Your task to perform on an android device: turn off notifications settings in the gmail app Image 0: 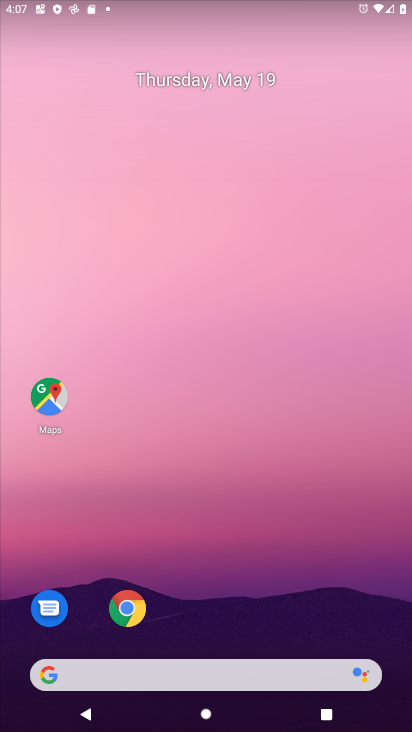
Step 0: drag from (276, 628) to (233, 101)
Your task to perform on an android device: turn off notifications settings in the gmail app Image 1: 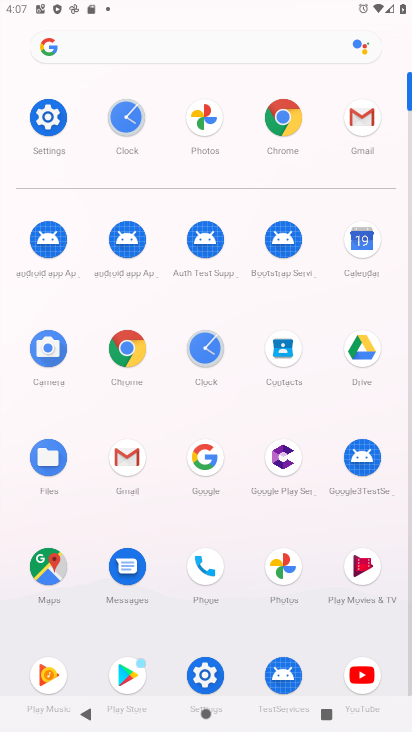
Step 1: click (136, 470)
Your task to perform on an android device: turn off notifications settings in the gmail app Image 2: 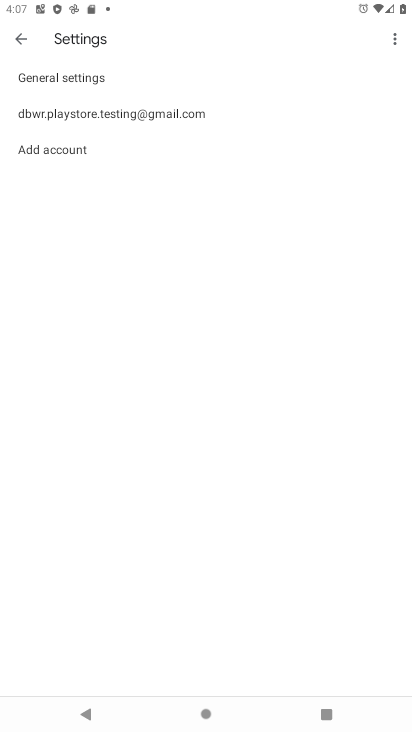
Step 2: click (204, 67)
Your task to perform on an android device: turn off notifications settings in the gmail app Image 3: 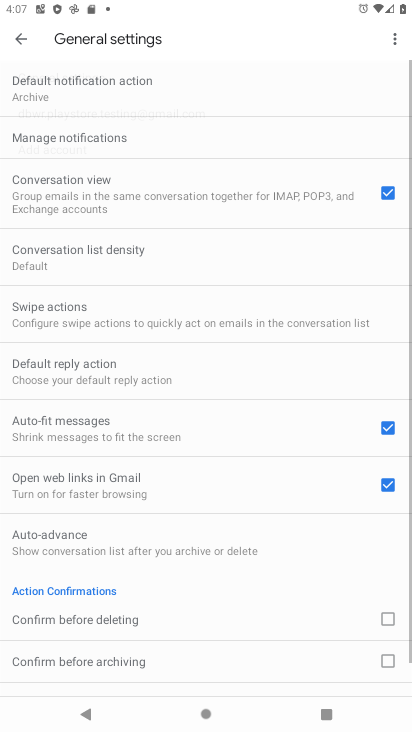
Step 3: click (186, 73)
Your task to perform on an android device: turn off notifications settings in the gmail app Image 4: 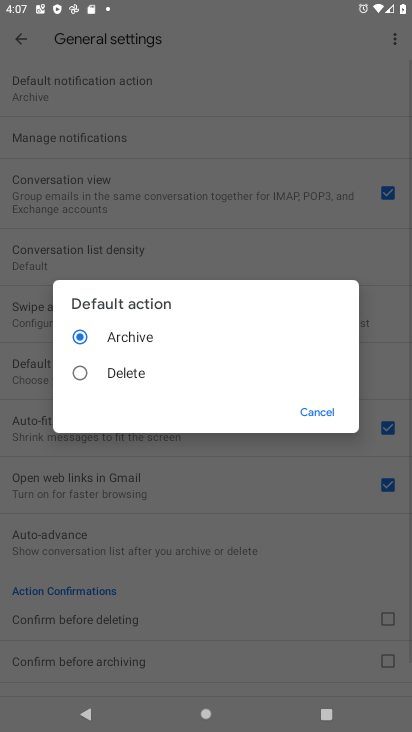
Step 4: click (306, 427)
Your task to perform on an android device: turn off notifications settings in the gmail app Image 5: 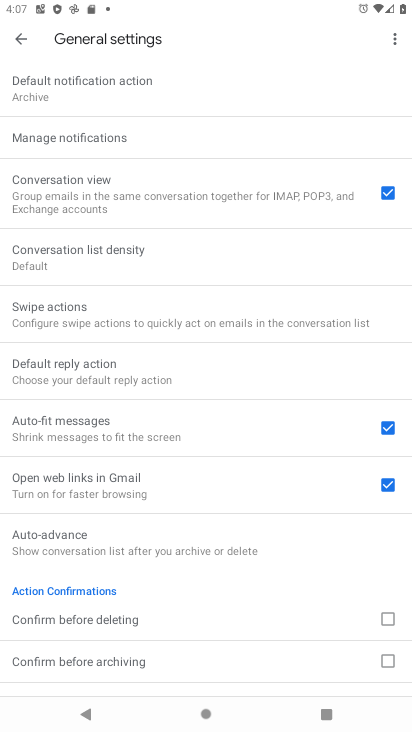
Step 5: task complete